Your task to perform on an android device: Check the news Image 0: 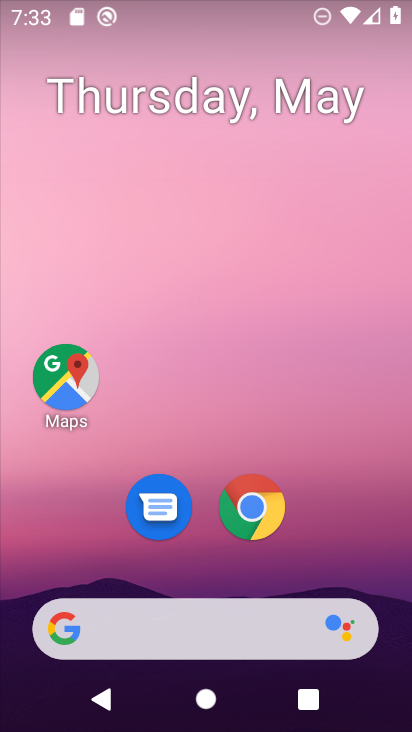
Step 0: drag from (345, 534) to (269, 19)
Your task to perform on an android device: Check the news Image 1: 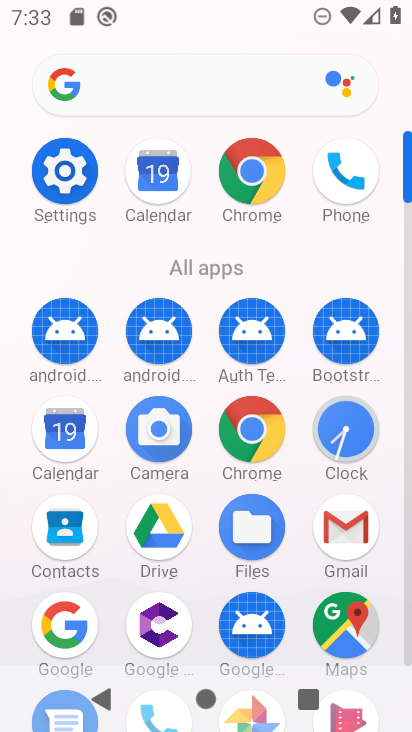
Step 1: click (270, 156)
Your task to perform on an android device: Check the news Image 2: 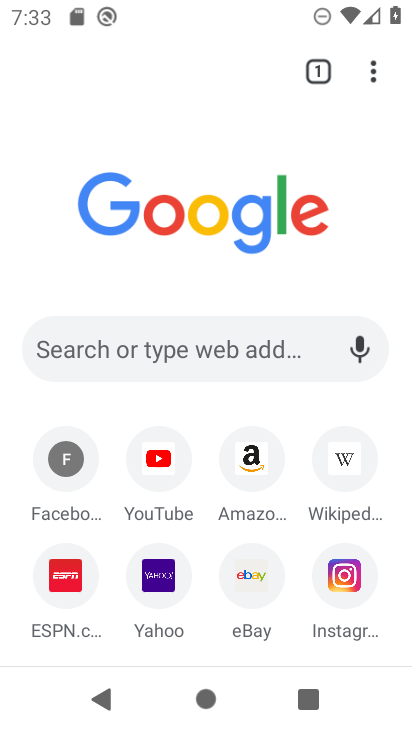
Step 2: task complete